Your task to perform on an android device: Open the stopwatch Image 0: 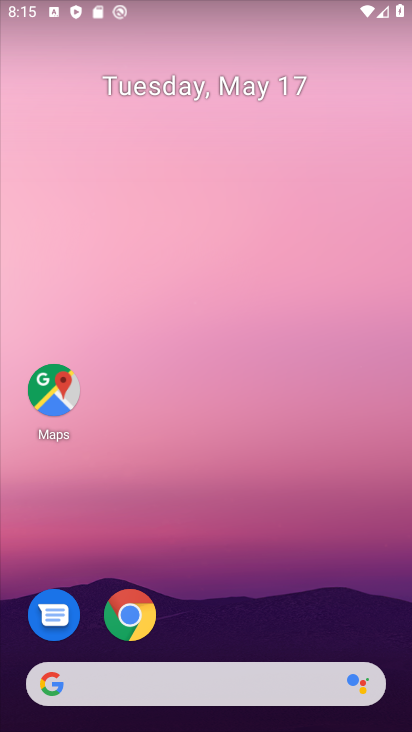
Step 0: drag from (383, 642) to (251, 140)
Your task to perform on an android device: Open the stopwatch Image 1: 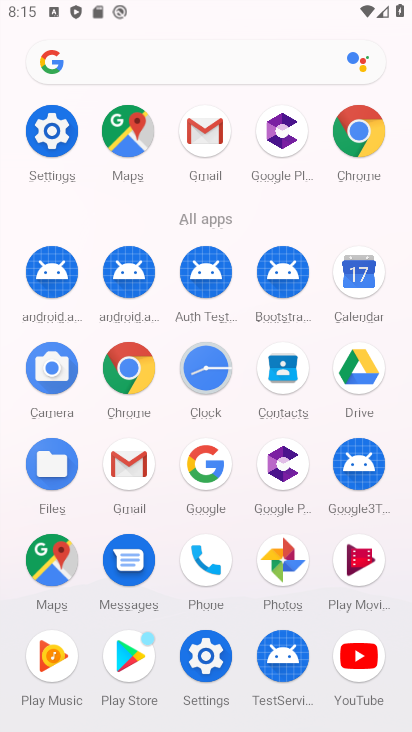
Step 1: click (206, 367)
Your task to perform on an android device: Open the stopwatch Image 2: 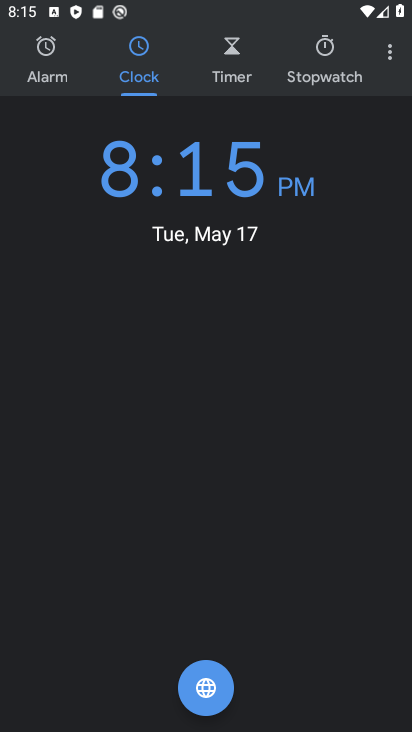
Step 2: click (326, 49)
Your task to perform on an android device: Open the stopwatch Image 3: 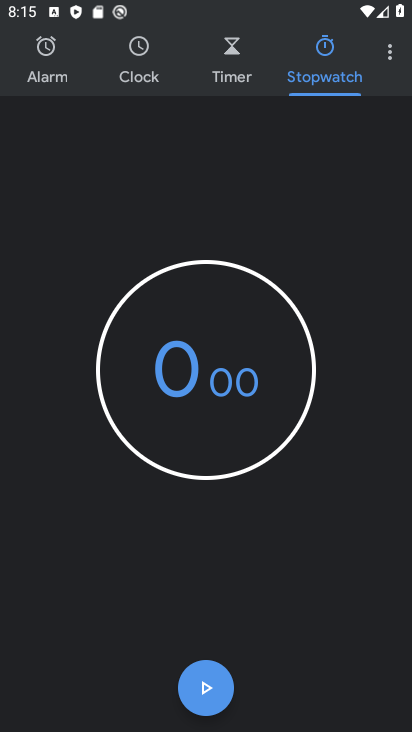
Step 3: task complete